Your task to perform on an android device: check storage Image 0: 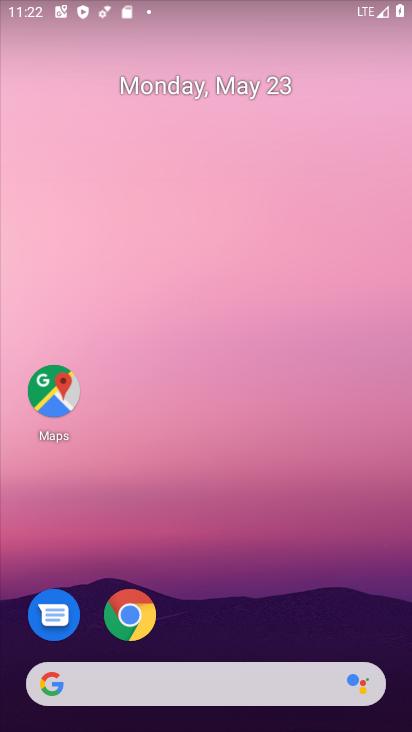
Step 0: drag from (196, 654) to (239, 4)
Your task to perform on an android device: check storage Image 1: 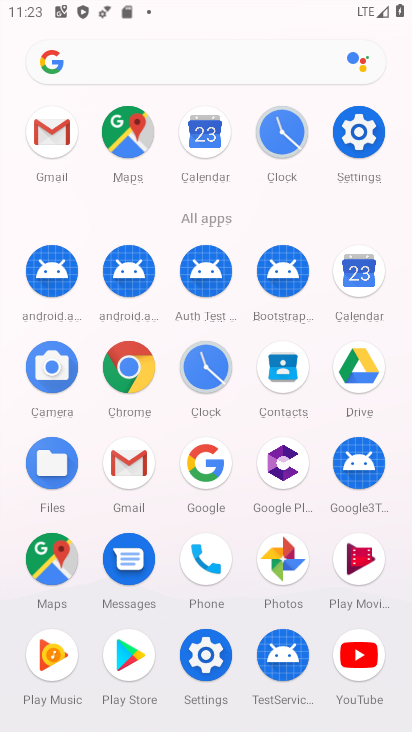
Step 1: click (354, 133)
Your task to perform on an android device: check storage Image 2: 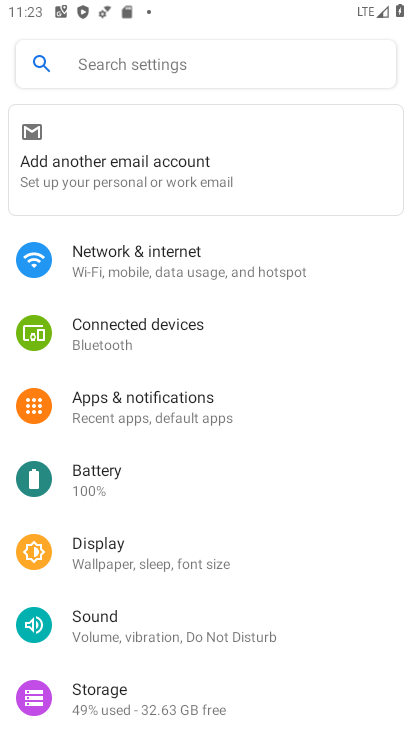
Step 2: click (158, 696)
Your task to perform on an android device: check storage Image 3: 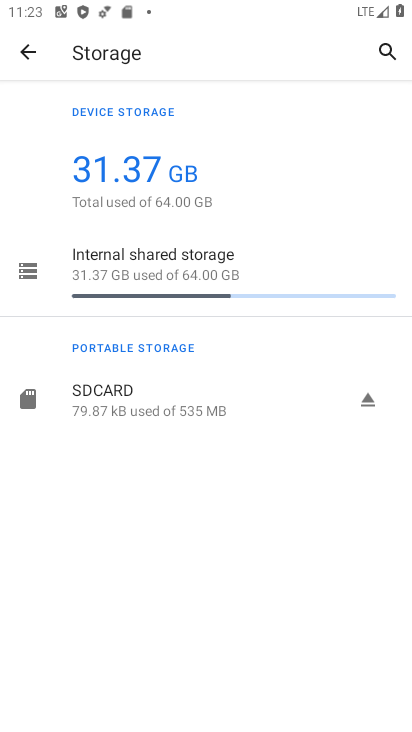
Step 3: task complete